Your task to perform on an android device: open app "Reddit" (install if not already installed) and go to login screen Image 0: 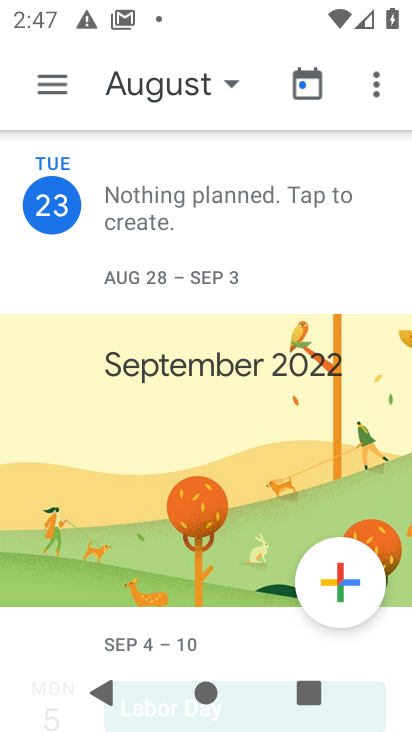
Step 0: press home button
Your task to perform on an android device: open app "Reddit" (install if not already installed) and go to login screen Image 1: 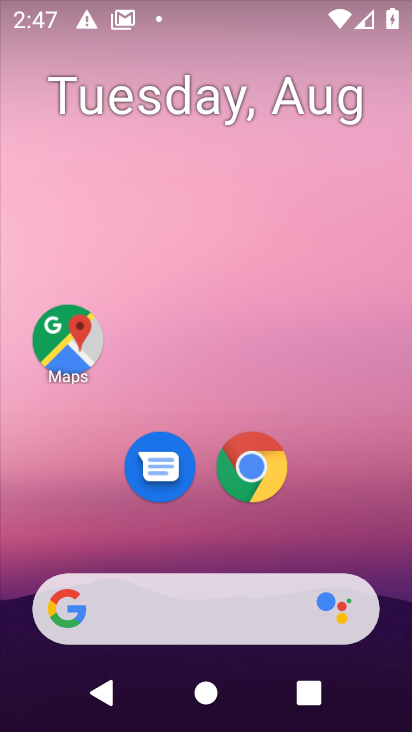
Step 1: drag from (218, 565) to (201, 149)
Your task to perform on an android device: open app "Reddit" (install if not already installed) and go to login screen Image 2: 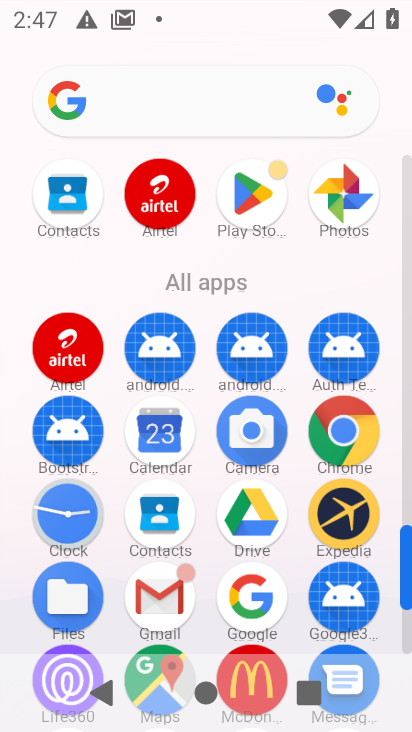
Step 2: click (271, 192)
Your task to perform on an android device: open app "Reddit" (install if not already installed) and go to login screen Image 3: 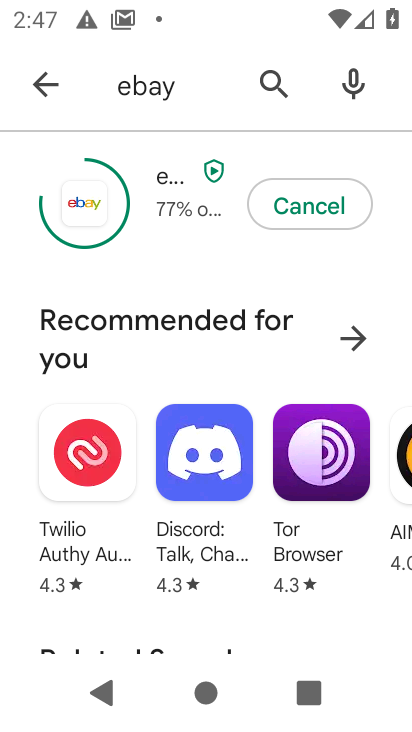
Step 3: click (278, 94)
Your task to perform on an android device: open app "Reddit" (install if not already installed) and go to login screen Image 4: 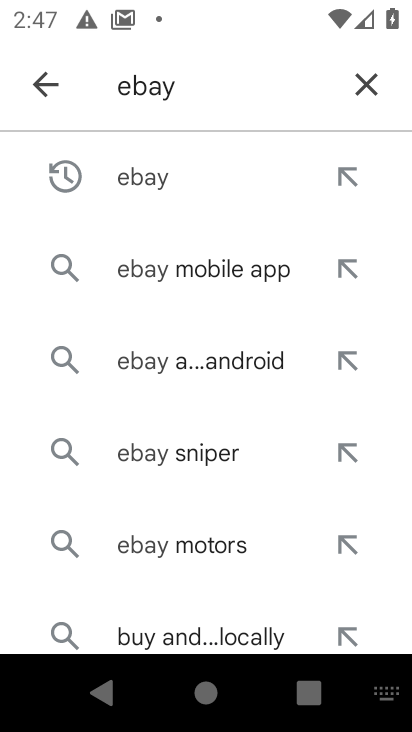
Step 4: click (380, 77)
Your task to perform on an android device: open app "Reddit" (install if not already installed) and go to login screen Image 5: 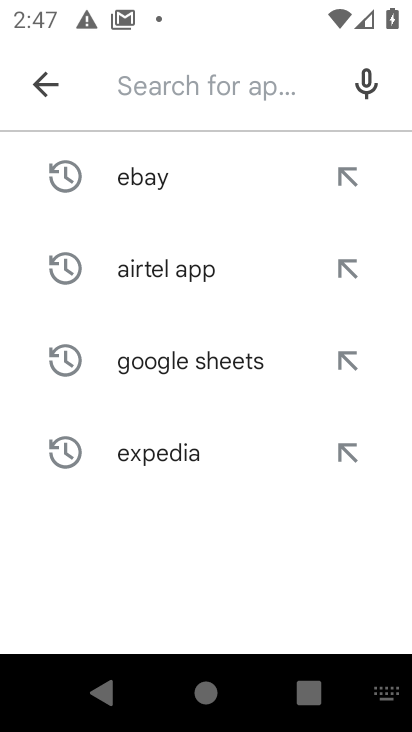
Step 5: type "reddit"
Your task to perform on an android device: open app "Reddit" (install if not already installed) and go to login screen Image 6: 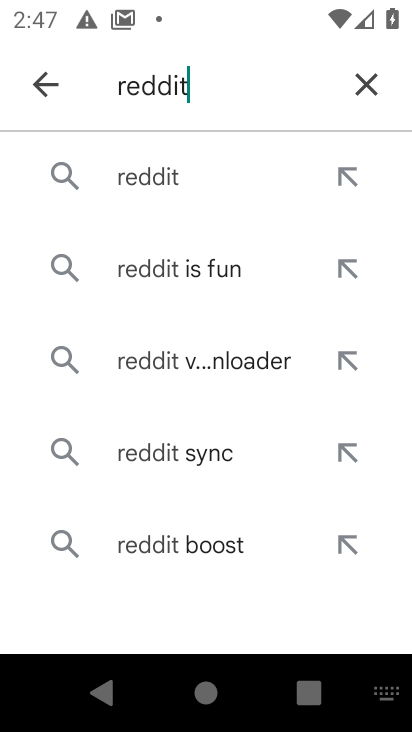
Step 6: click (114, 162)
Your task to perform on an android device: open app "Reddit" (install if not already installed) and go to login screen Image 7: 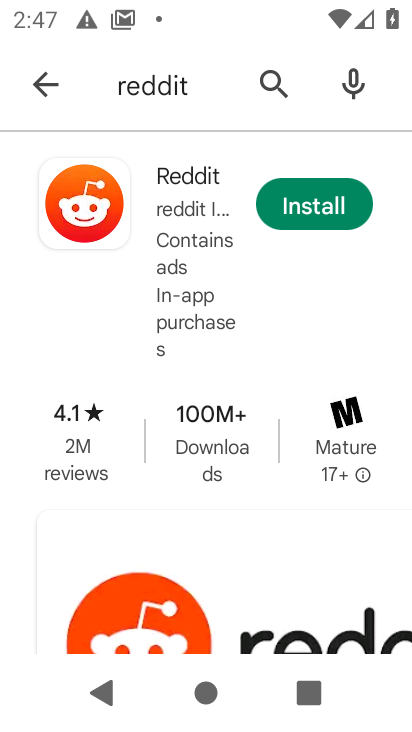
Step 7: click (306, 218)
Your task to perform on an android device: open app "Reddit" (install if not already installed) and go to login screen Image 8: 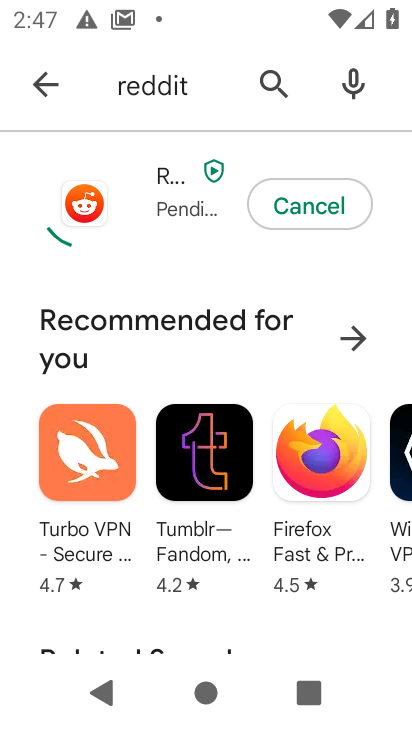
Step 8: task complete